Your task to perform on an android device: Show me productivity apps on the Play Store Image 0: 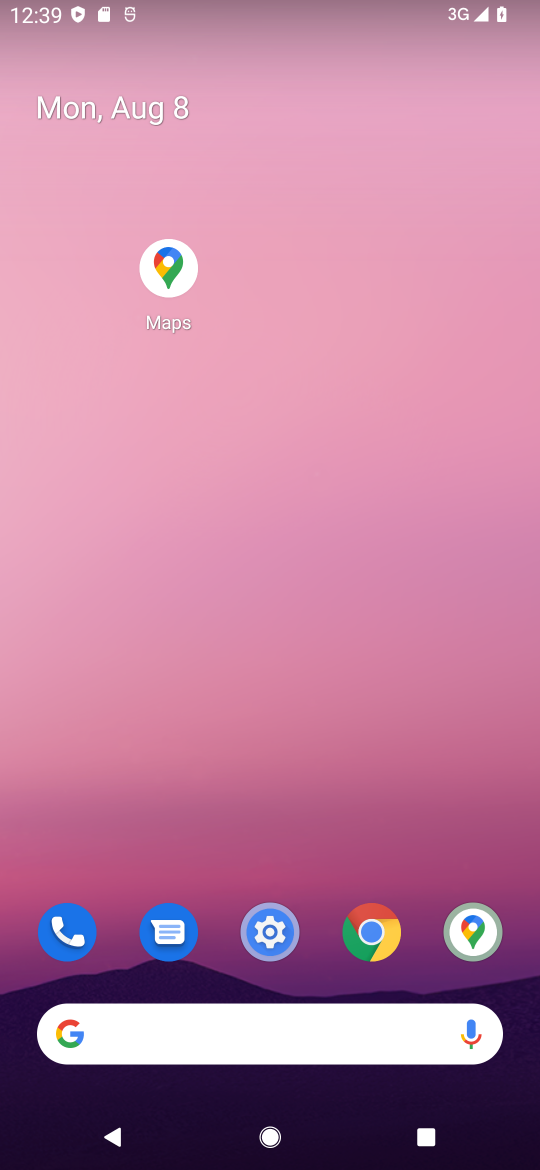
Step 0: click (314, 2)
Your task to perform on an android device: Show me productivity apps on the Play Store Image 1: 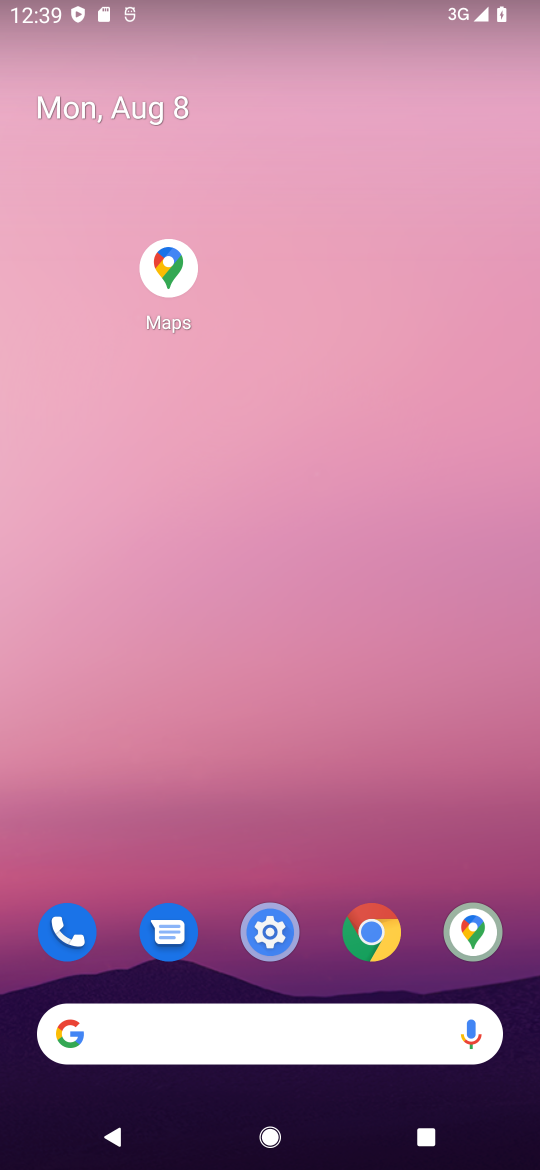
Step 1: drag from (431, 82) to (420, 0)
Your task to perform on an android device: Show me productivity apps on the Play Store Image 2: 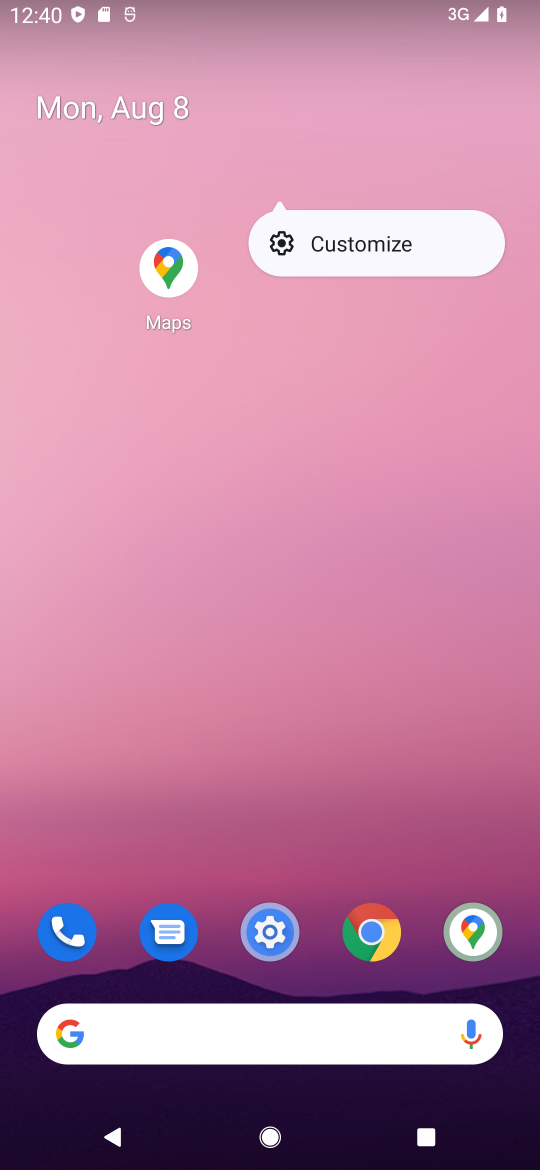
Step 2: drag from (290, 865) to (329, 176)
Your task to perform on an android device: Show me productivity apps on the Play Store Image 3: 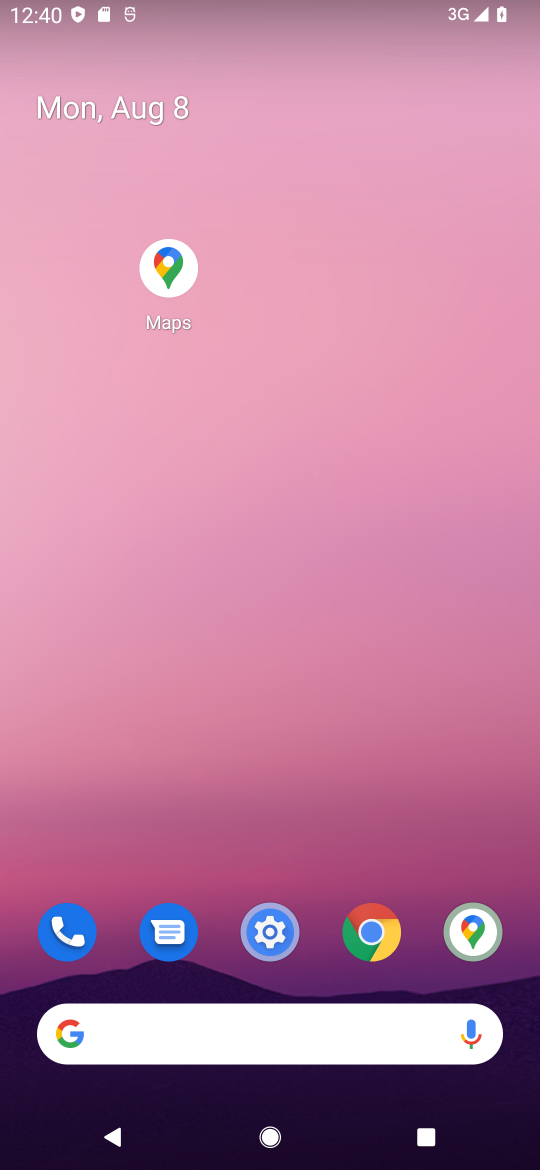
Step 3: drag from (356, 798) to (434, 25)
Your task to perform on an android device: Show me productivity apps on the Play Store Image 4: 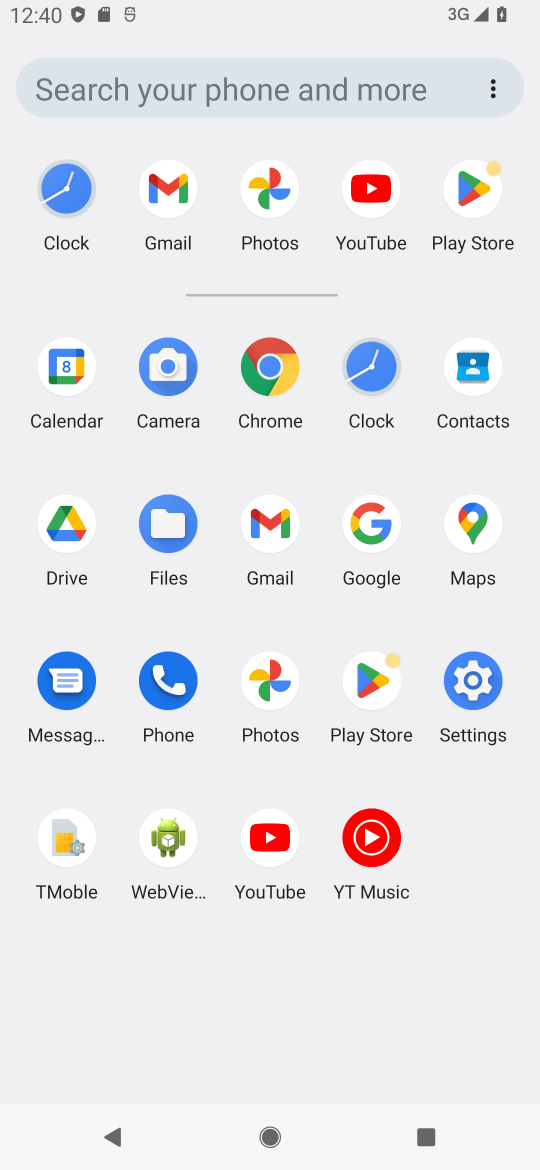
Step 4: click (366, 639)
Your task to perform on an android device: Show me productivity apps on the Play Store Image 5: 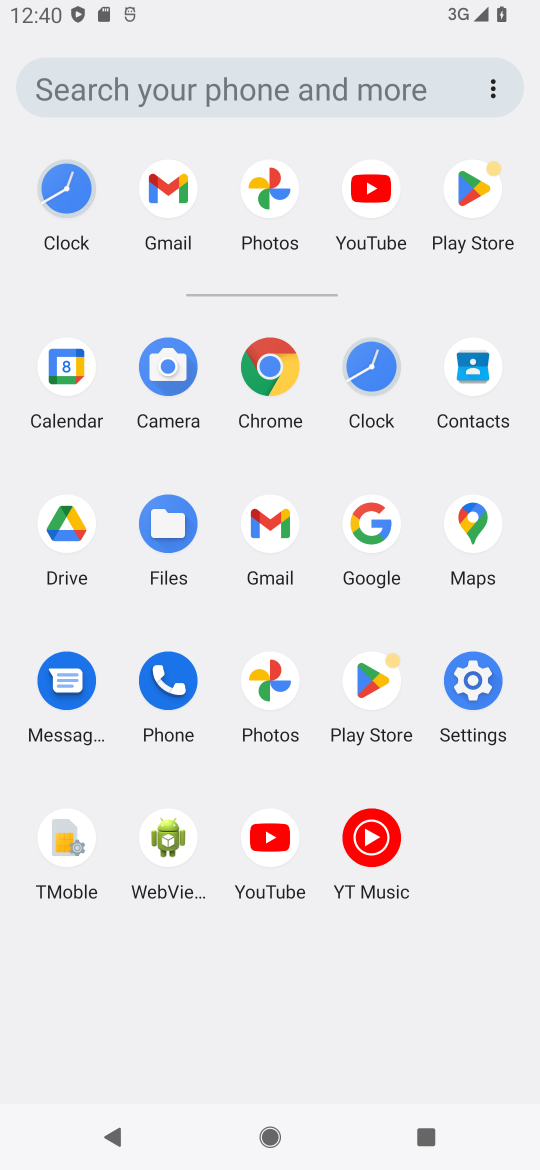
Step 5: click (376, 684)
Your task to perform on an android device: Show me productivity apps on the Play Store Image 6: 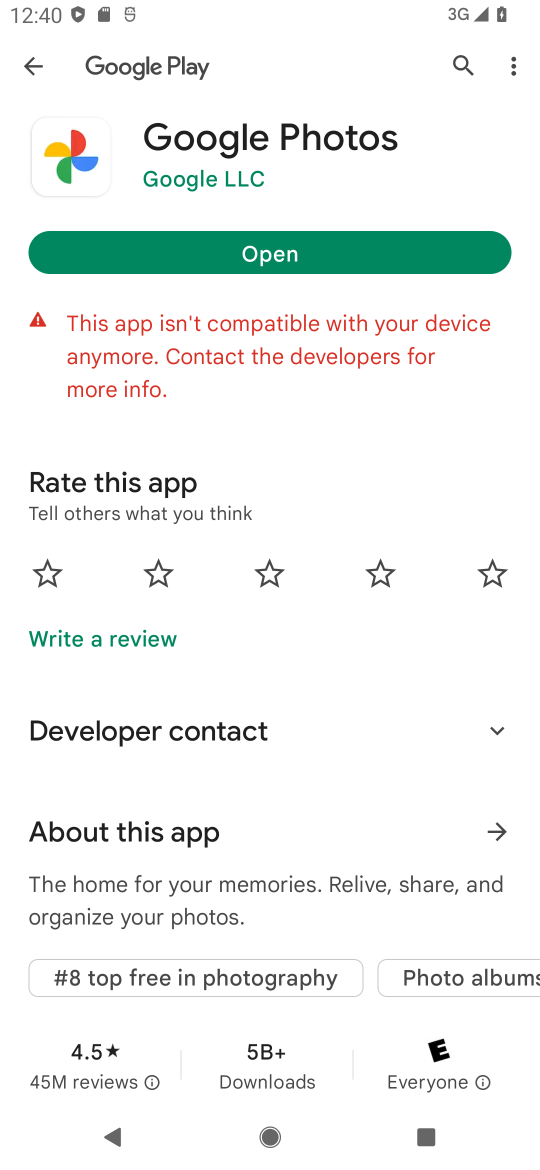
Step 6: click (28, 54)
Your task to perform on an android device: Show me productivity apps on the Play Store Image 7: 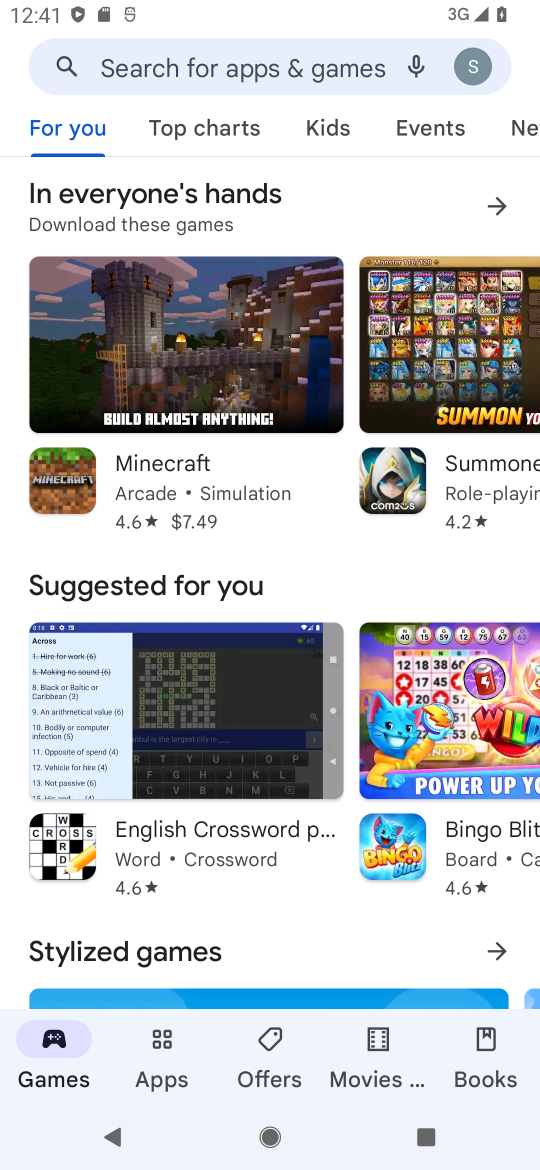
Step 7: click (31, 66)
Your task to perform on an android device: Show me productivity apps on the Play Store Image 8: 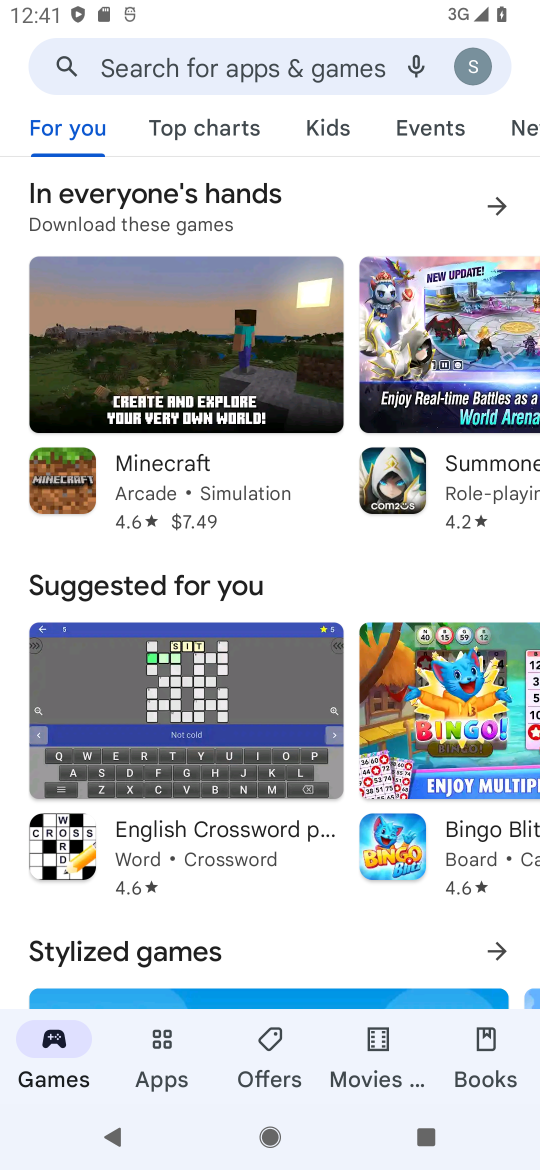
Step 8: click (153, 1050)
Your task to perform on an android device: Show me productivity apps on the Play Store Image 9: 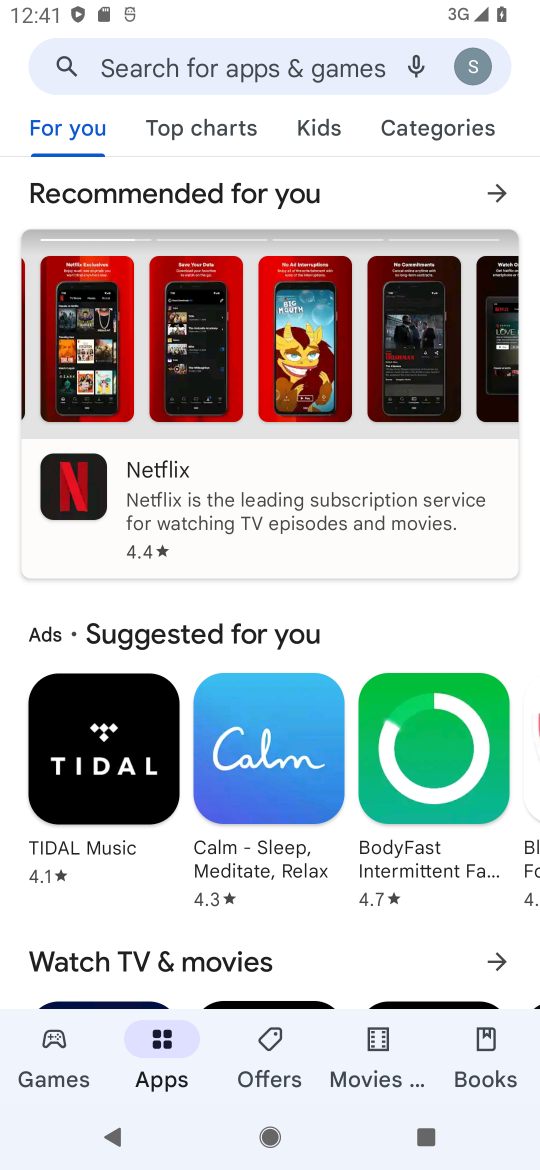
Step 9: drag from (229, 459) to (363, 9)
Your task to perform on an android device: Show me productivity apps on the Play Store Image 10: 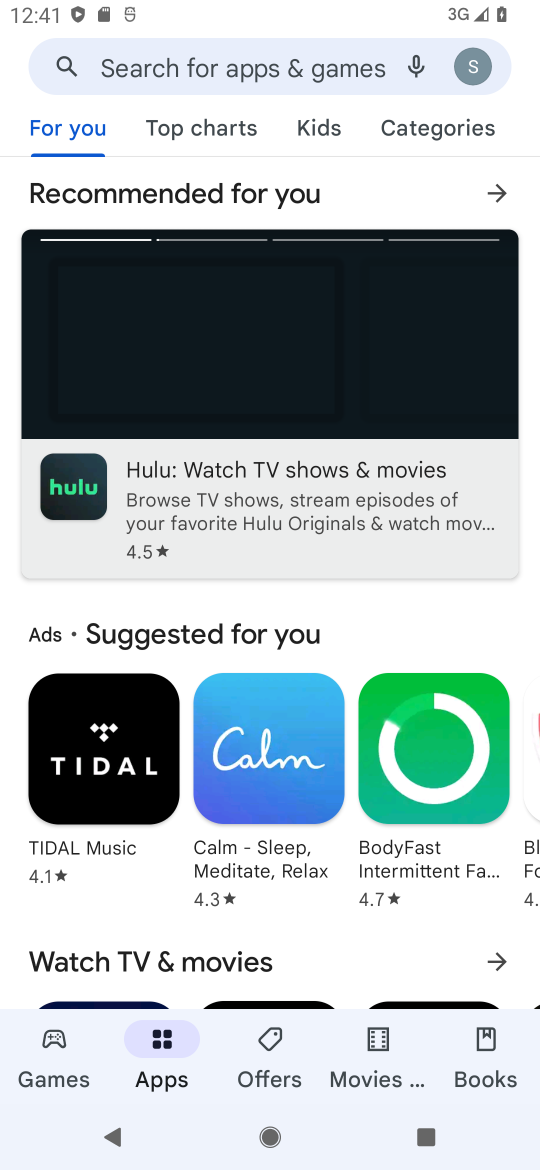
Step 10: click (473, 121)
Your task to perform on an android device: Show me productivity apps on the Play Store Image 11: 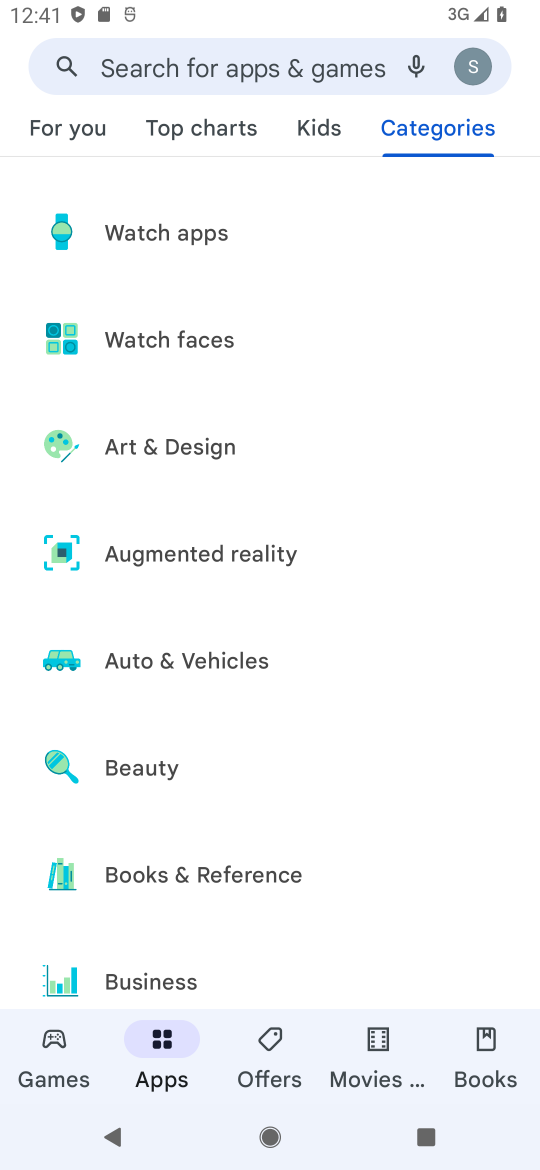
Step 11: drag from (122, 915) to (171, 77)
Your task to perform on an android device: Show me productivity apps on the Play Store Image 12: 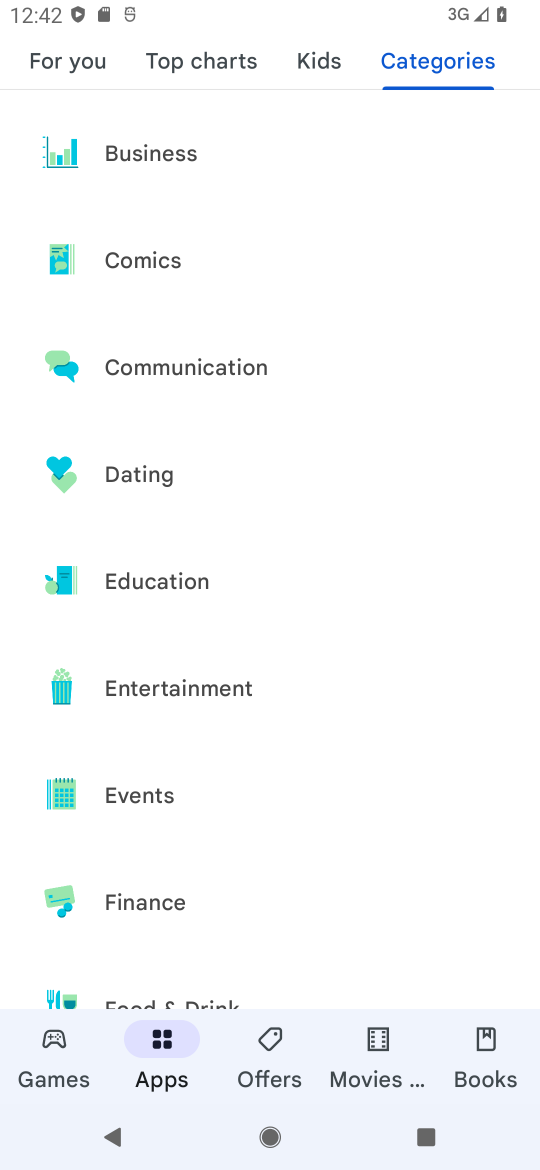
Step 12: drag from (281, 873) to (242, 183)
Your task to perform on an android device: Show me productivity apps on the Play Store Image 13: 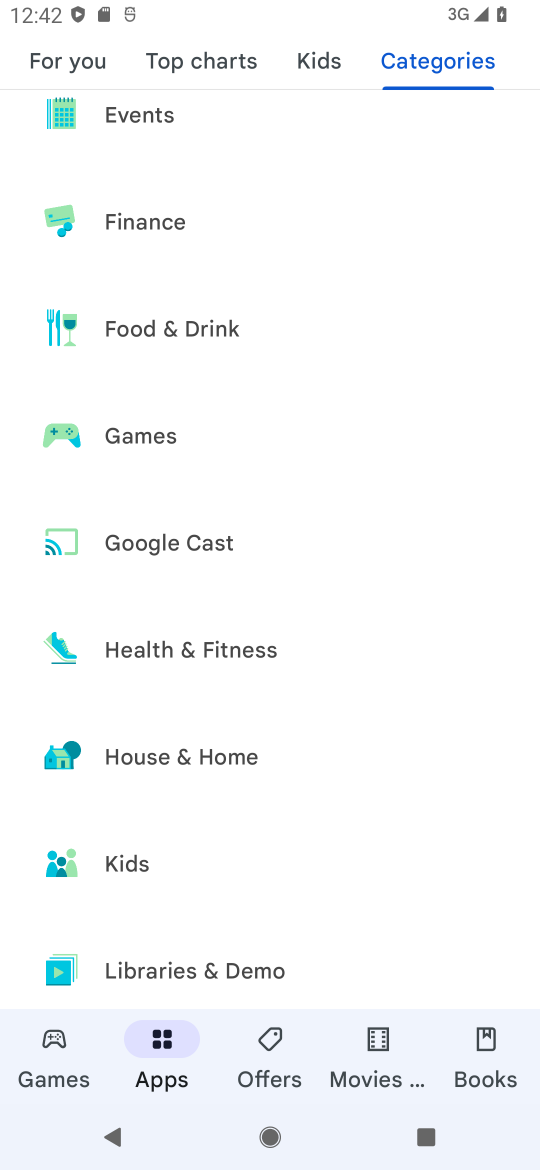
Step 13: drag from (152, 956) to (243, 59)
Your task to perform on an android device: Show me productivity apps on the Play Store Image 14: 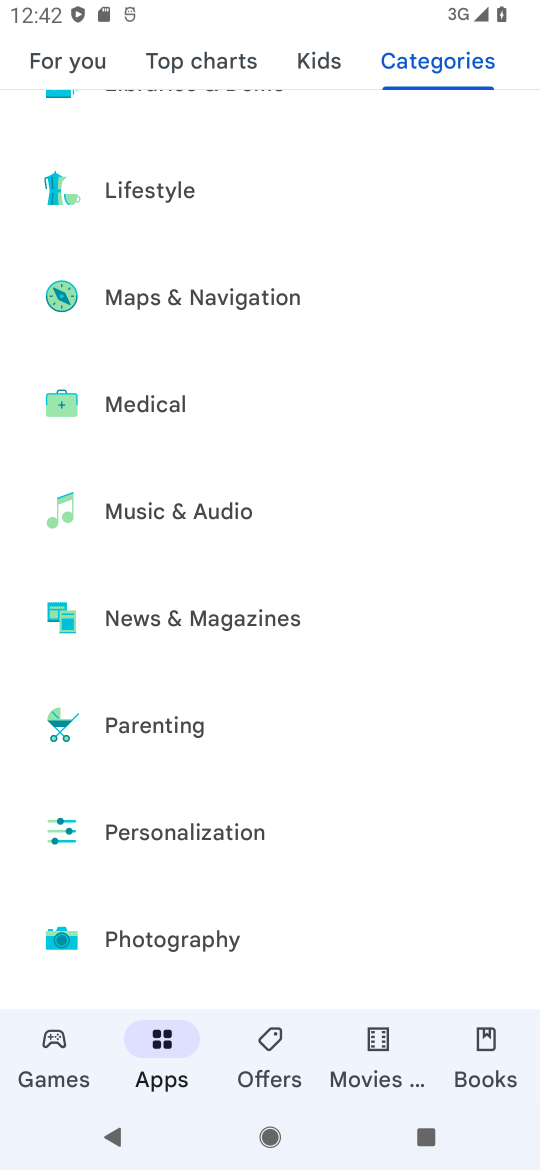
Step 14: drag from (307, 910) to (322, 121)
Your task to perform on an android device: Show me productivity apps on the Play Store Image 15: 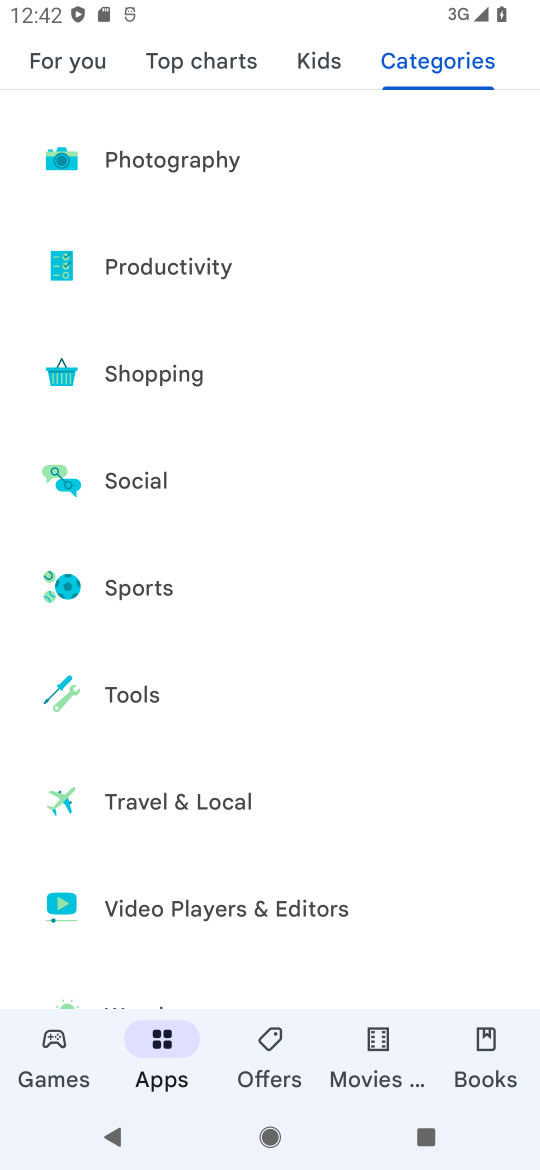
Step 15: click (238, 264)
Your task to perform on an android device: Show me productivity apps on the Play Store Image 16: 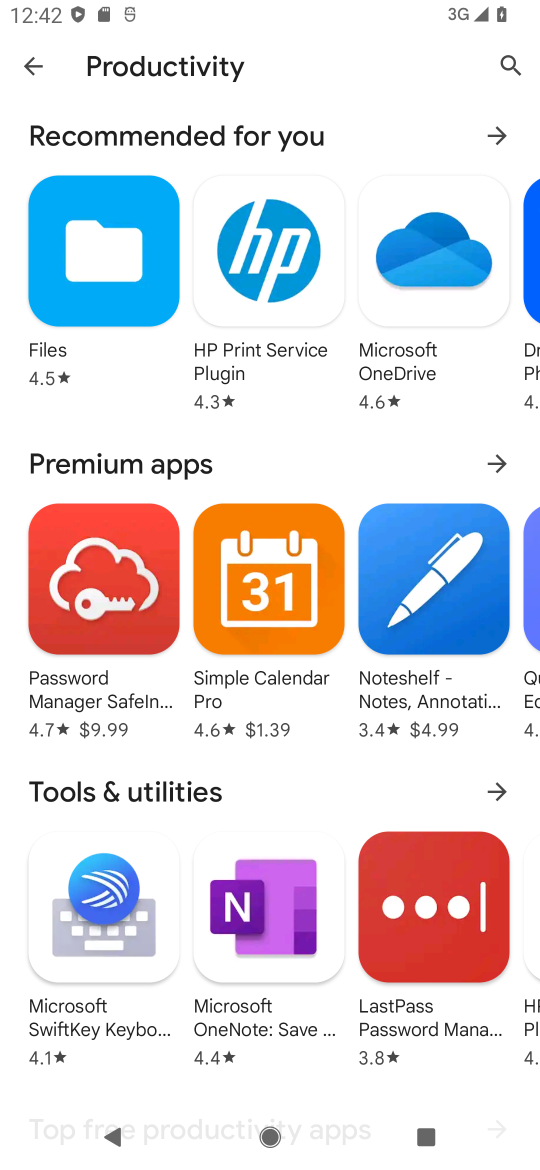
Step 16: task complete